Your task to perform on an android device: toggle show notifications on the lock screen Image 0: 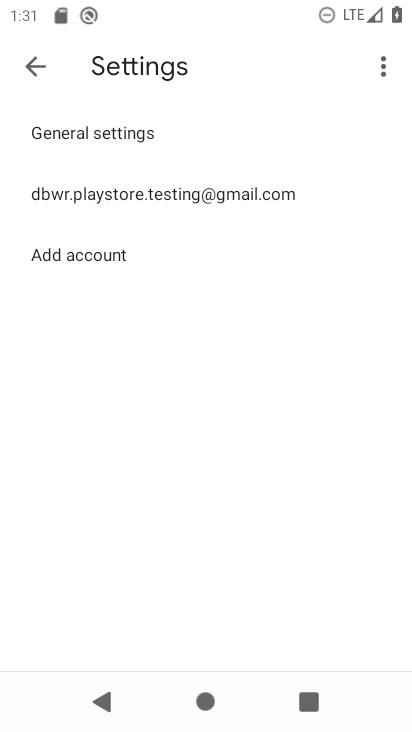
Step 0: press home button
Your task to perform on an android device: toggle show notifications on the lock screen Image 1: 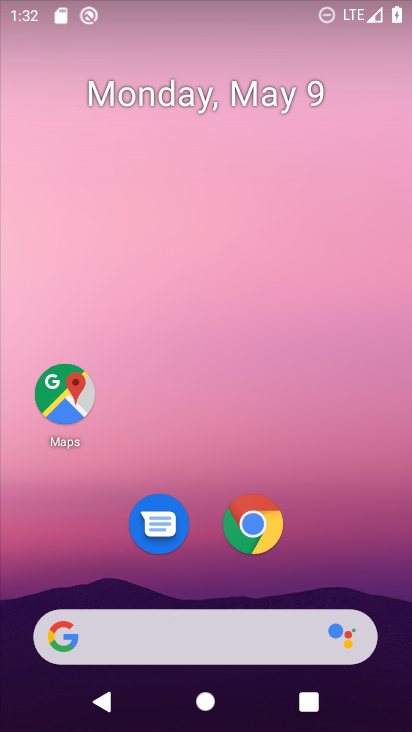
Step 1: drag from (332, 543) to (371, 66)
Your task to perform on an android device: toggle show notifications on the lock screen Image 2: 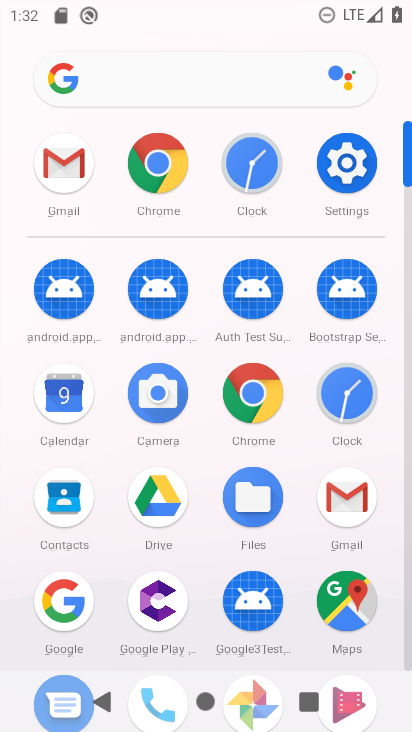
Step 2: click (357, 156)
Your task to perform on an android device: toggle show notifications on the lock screen Image 3: 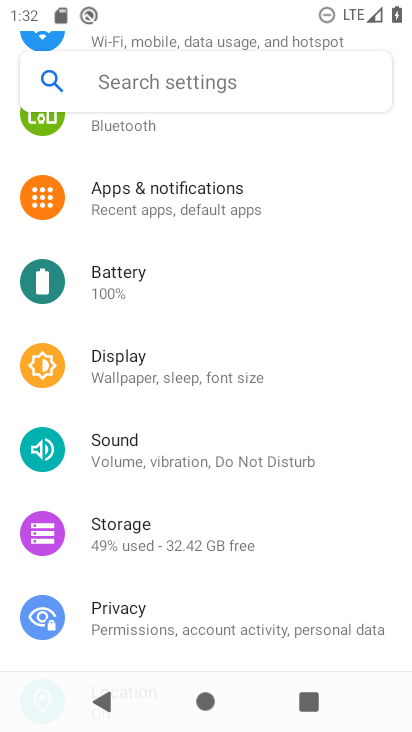
Step 3: click (226, 201)
Your task to perform on an android device: toggle show notifications on the lock screen Image 4: 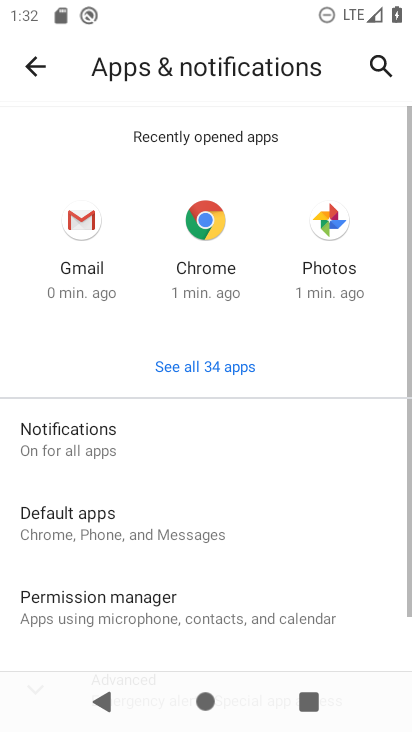
Step 4: click (103, 428)
Your task to perform on an android device: toggle show notifications on the lock screen Image 5: 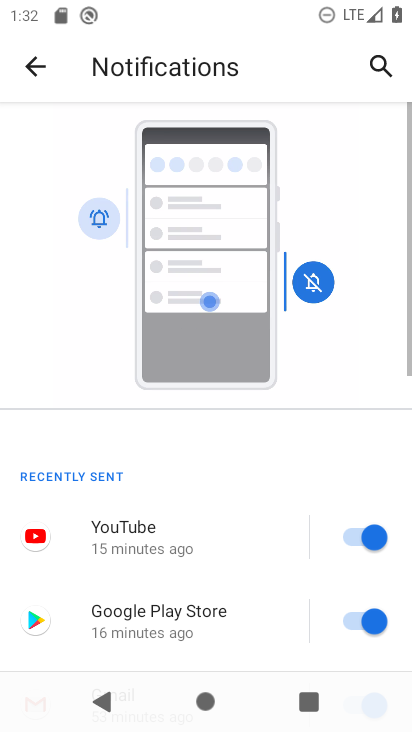
Step 5: drag from (259, 553) to (273, 92)
Your task to perform on an android device: toggle show notifications on the lock screen Image 6: 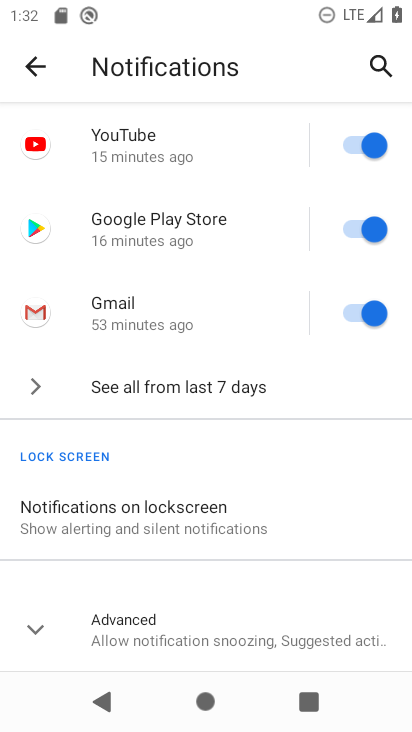
Step 6: click (203, 516)
Your task to perform on an android device: toggle show notifications on the lock screen Image 7: 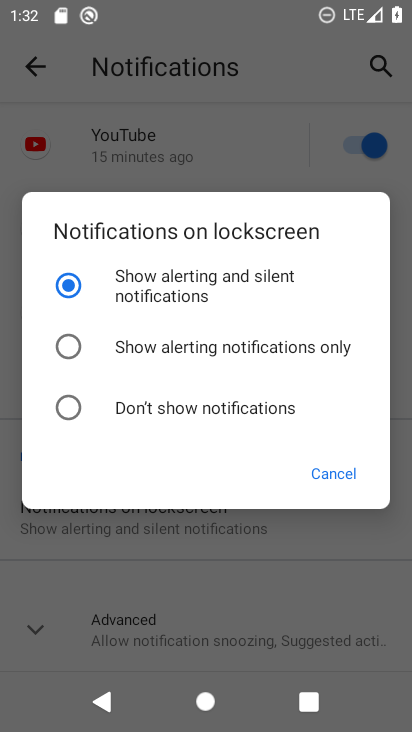
Step 7: click (65, 396)
Your task to perform on an android device: toggle show notifications on the lock screen Image 8: 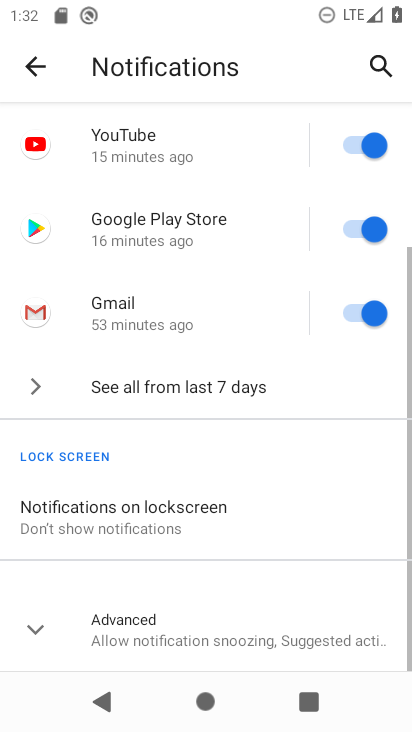
Step 8: task complete